Your task to perform on an android device: Open sound settings Image 0: 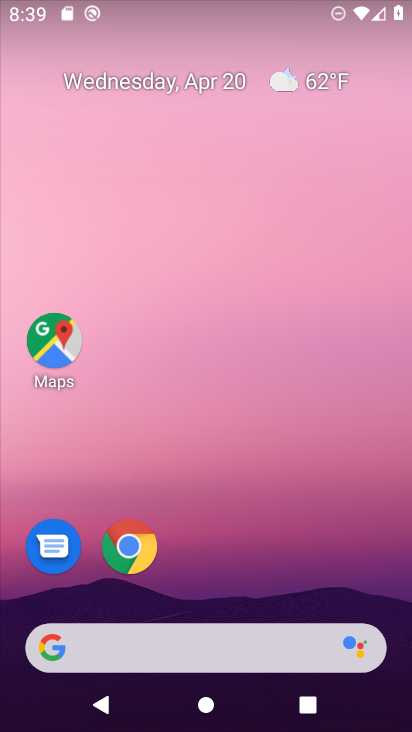
Step 0: drag from (313, 292) to (300, 98)
Your task to perform on an android device: Open sound settings Image 1: 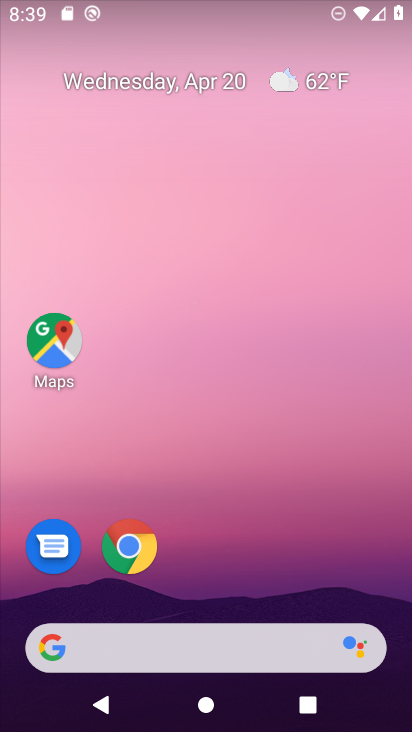
Step 1: drag from (251, 558) to (256, 87)
Your task to perform on an android device: Open sound settings Image 2: 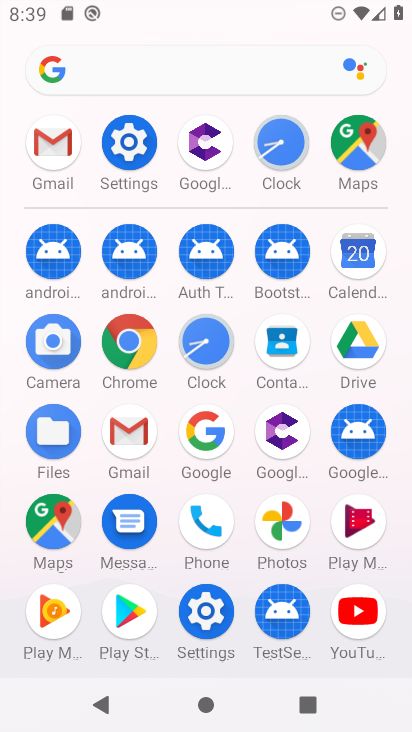
Step 2: click (130, 142)
Your task to perform on an android device: Open sound settings Image 3: 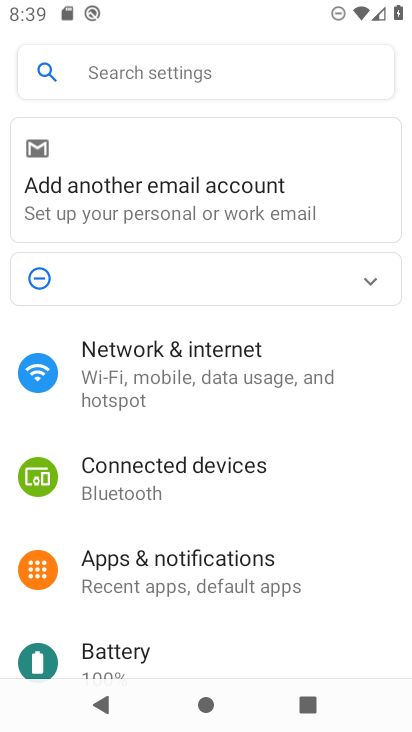
Step 3: drag from (209, 613) to (214, 86)
Your task to perform on an android device: Open sound settings Image 4: 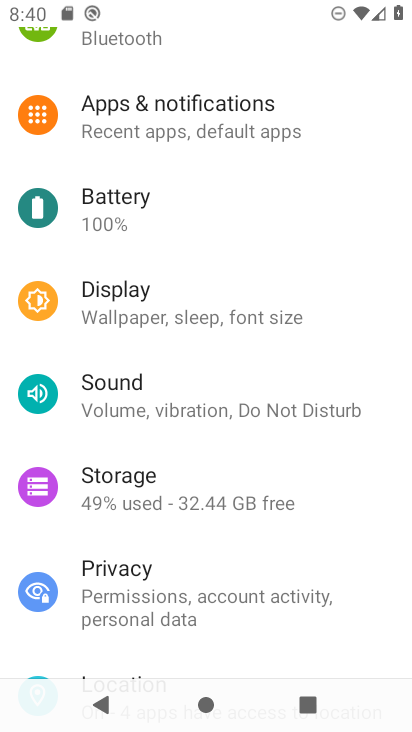
Step 4: click (185, 398)
Your task to perform on an android device: Open sound settings Image 5: 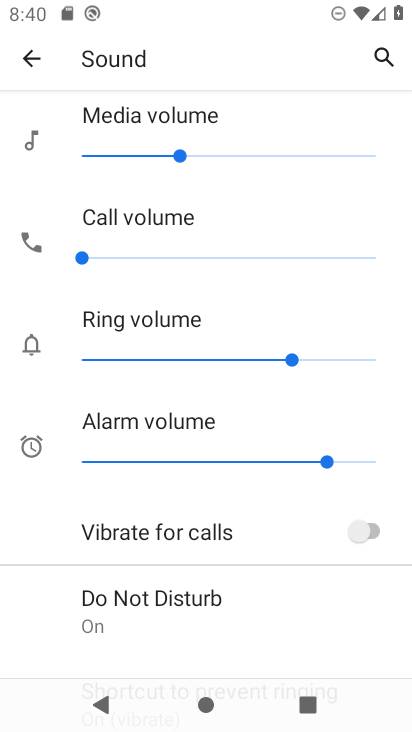
Step 5: task complete